Your task to perform on an android device: Go to privacy settings Image 0: 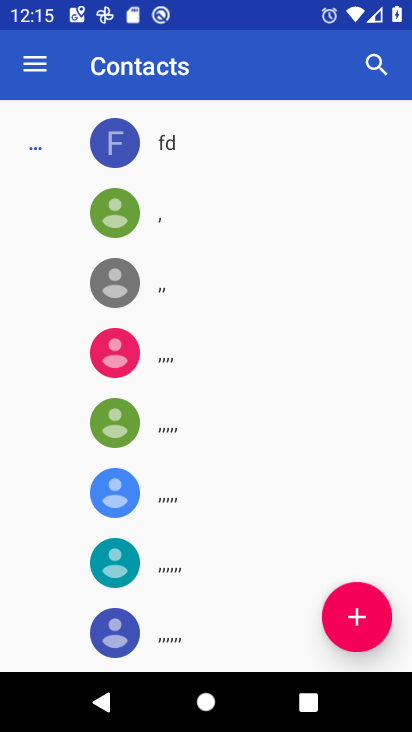
Step 0: press home button
Your task to perform on an android device: Go to privacy settings Image 1: 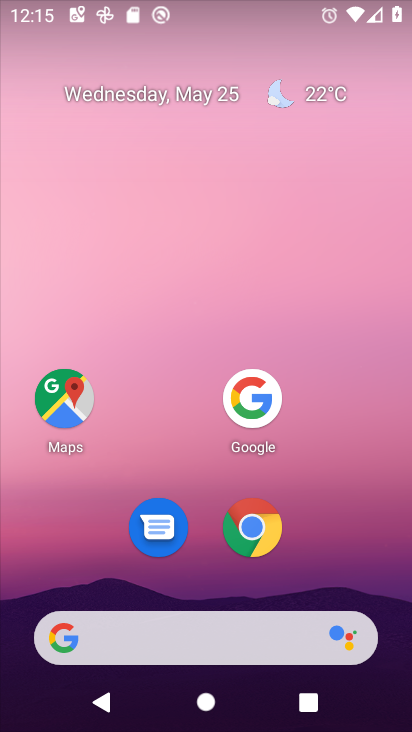
Step 1: drag from (173, 647) to (321, 178)
Your task to perform on an android device: Go to privacy settings Image 2: 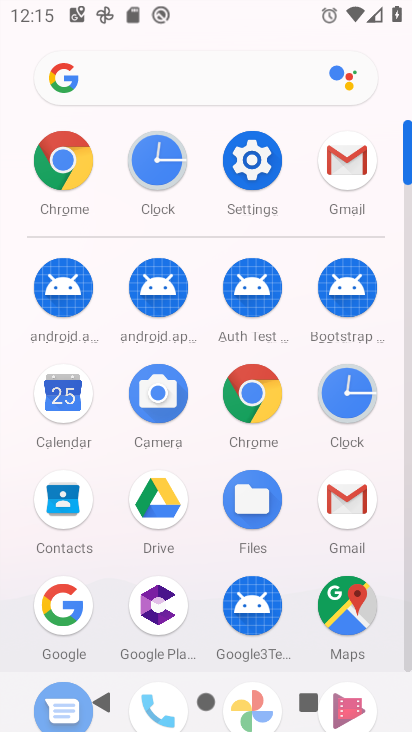
Step 2: click (258, 166)
Your task to perform on an android device: Go to privacy settings Image 3: 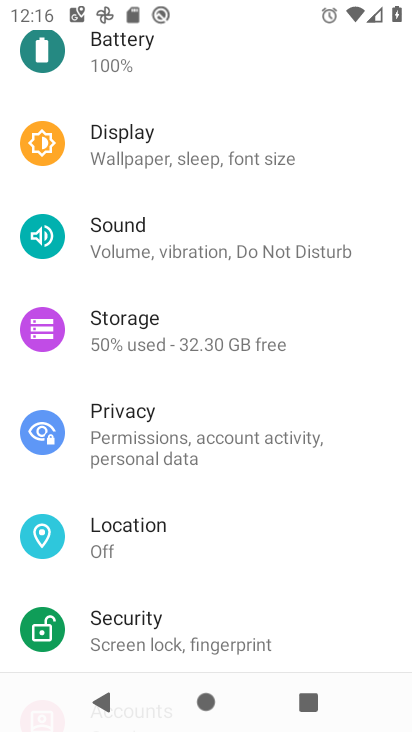
Step 3: task complete